Your task to perform on an android device: delete browsing data in the chrome app Image 0: 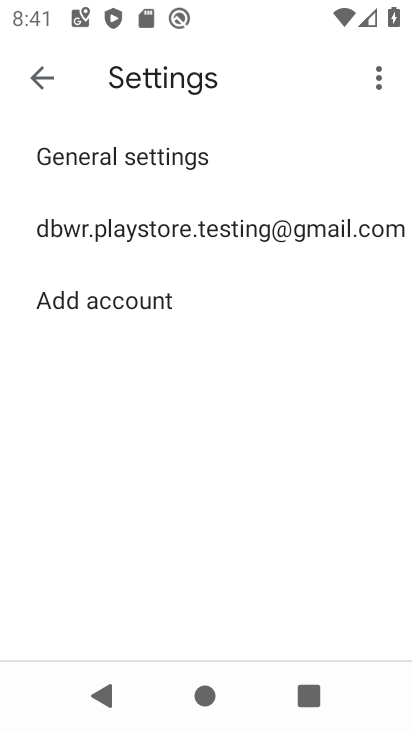
Step 0: press home button
Your task to perform on an android device: delete browsing data in the chrome app Image 1: 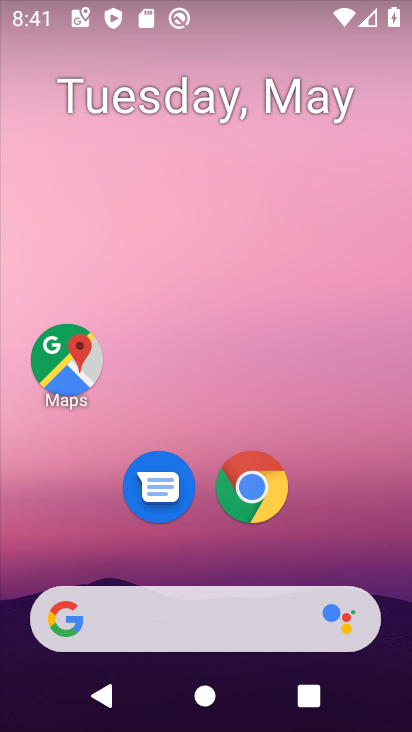
Step 1: click (253, 502)
Your task to perform on an android device: delete browsing data in the chrome app Image 2: 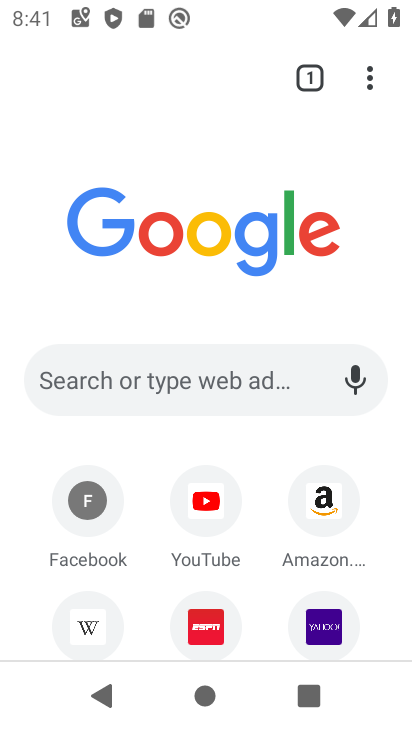
Step 2: drag from (370, 86) to (240, 540)
Your task to perform on an android device: delete browsing data in the chrome app Image 3: 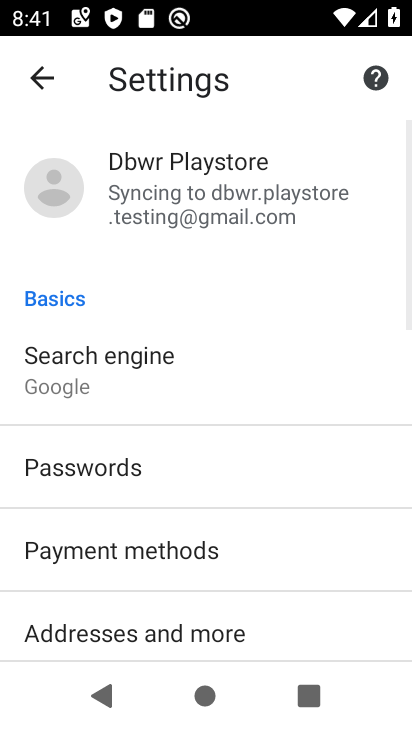
Step 3: drag from (240, 595) to (368, 45)
Your task to perform on an android device: delete browsing data in the chrome app Image 4: 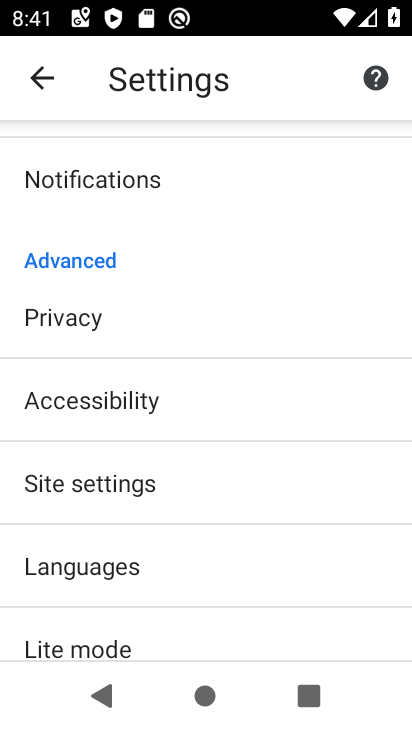
Step 4: click (81, 315)
Your task to perform on an android device: delete browsing data in the chrome app Image 5: 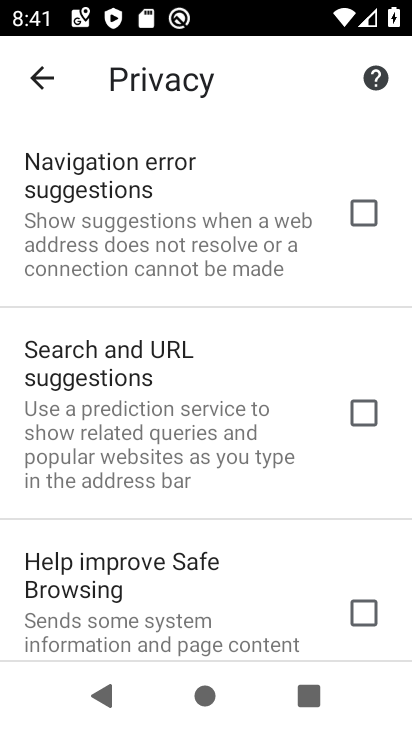
Step 5: drag from (240, 567) to (349, 84)
Your task to perform on an android device: delete browsing data in the chrome app Image 6: 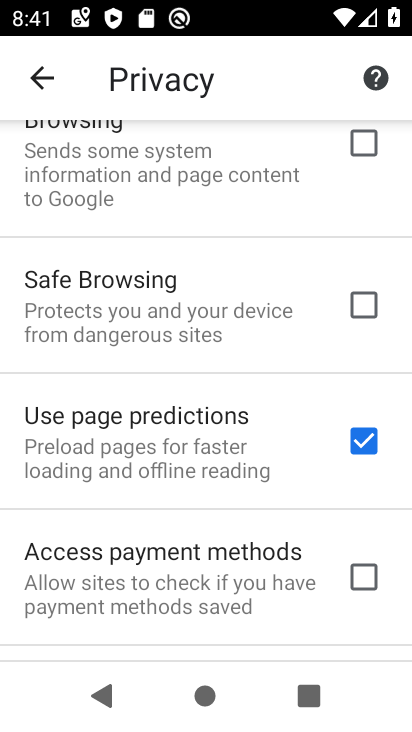
Step 6: drag from (219, 581) to (344, 62)
Your task to perform on an android device: delete browsing data in the chrome app Image 7: 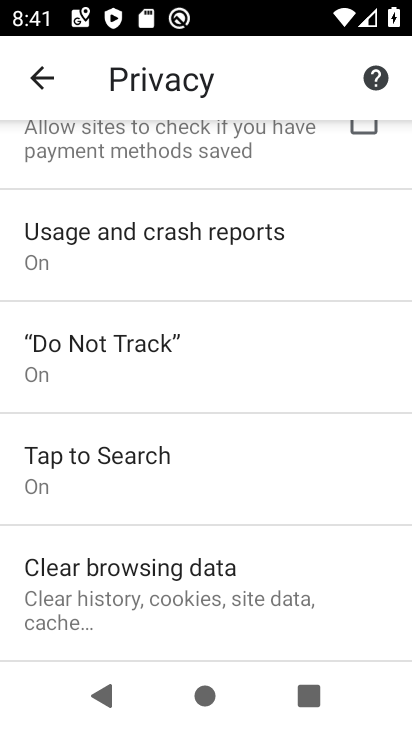
Step 7: drag from (263, 529) to (340, 121)
Your task to perform on an android device: delete browsing data in the chrome app Image 8: 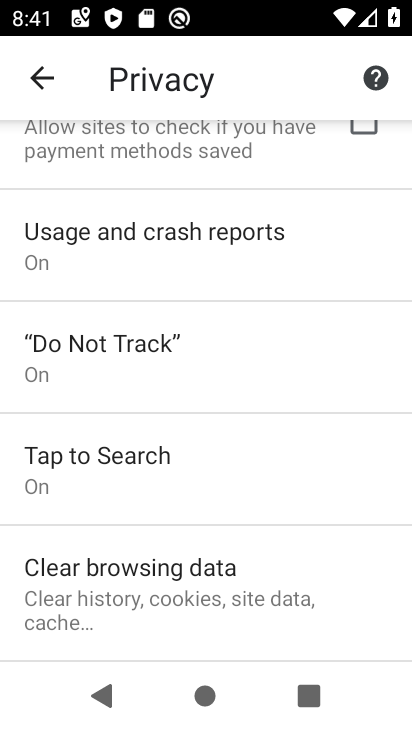
Step 8: click (192, 594)
Your task to perform on an android device: delete browsing data in the chrome app Image 9: 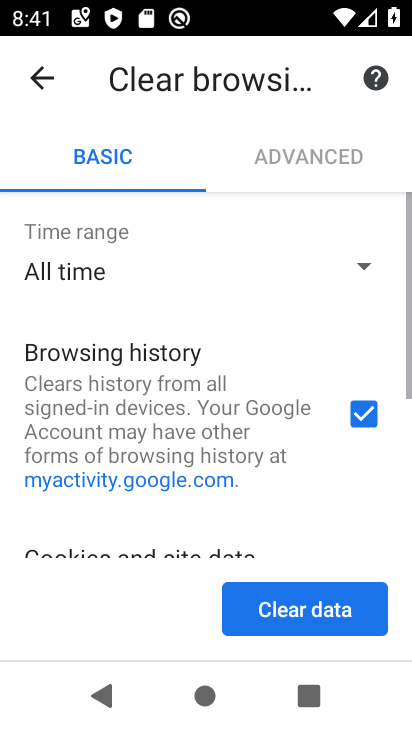
Step 9: drag from (250, 487) to (340, 151)
Your task to perform on an android device: delete browsing data in the chrome app Image 10: 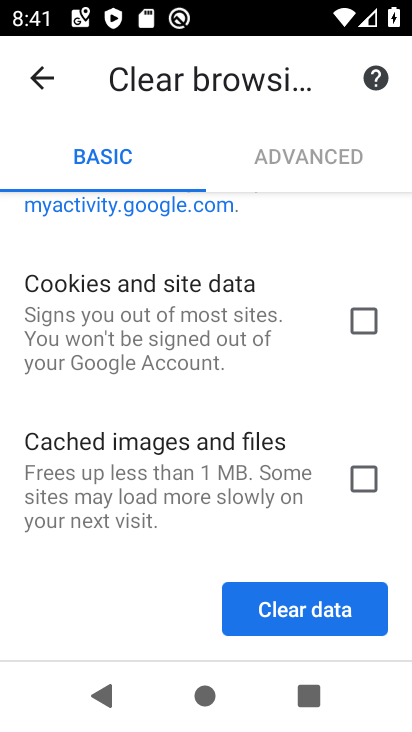
Step 10: click (362, 321)
Your task to perform on an android device: delete browsing data in the chrome app Image 11: 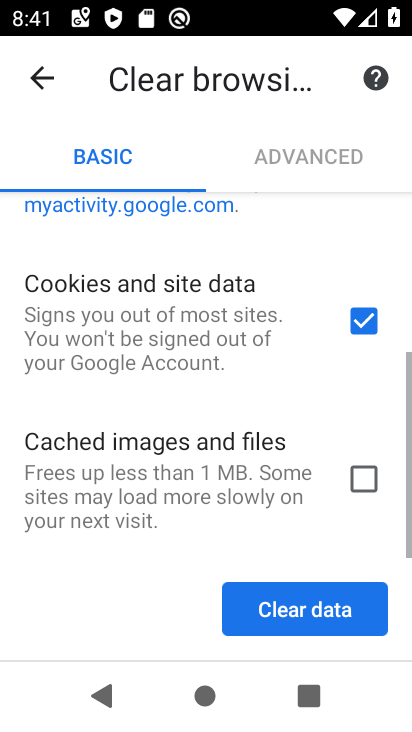
Step 11: click (364, 486)
Your task to perform on an android device: delete browsing data in the chrome app Image 12: 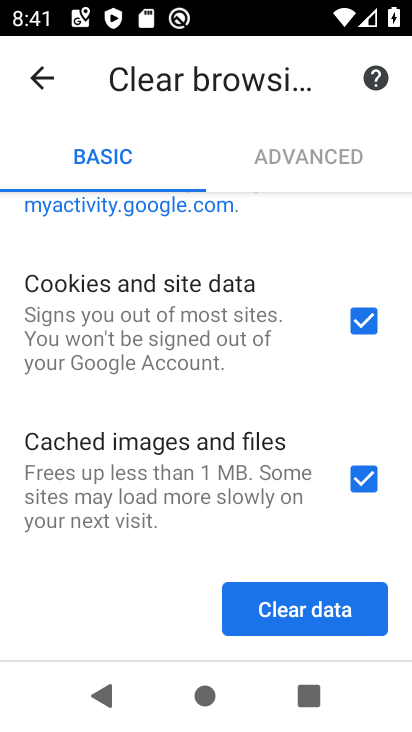
Step 12: click (277, 613)
Your task to perform on an android device: delete browsing data in the chrome app Image 13: 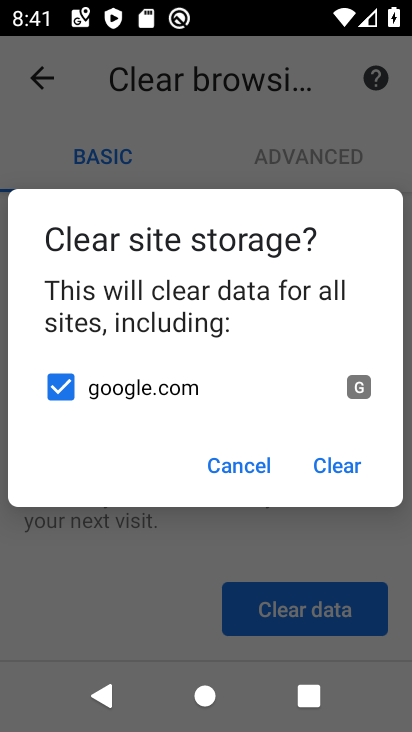
Step 13: click (334, 466)
Your task to perform on an android device: delete browsing data in the chrome app Image 14: 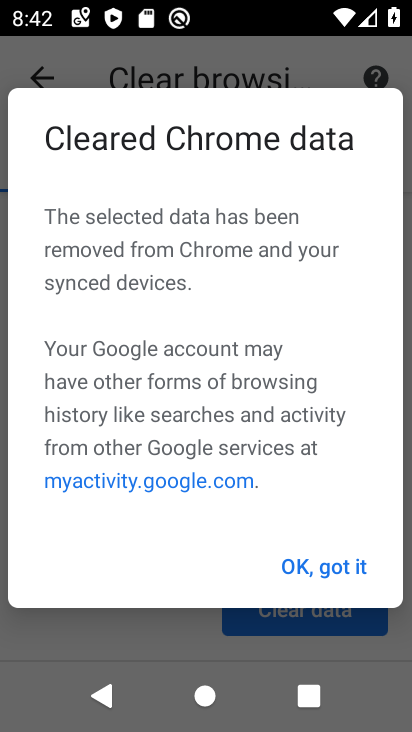
Step 14: click (295, 571)
Your task to perform on an android device: delete browsing data in the chrome app Image 15: 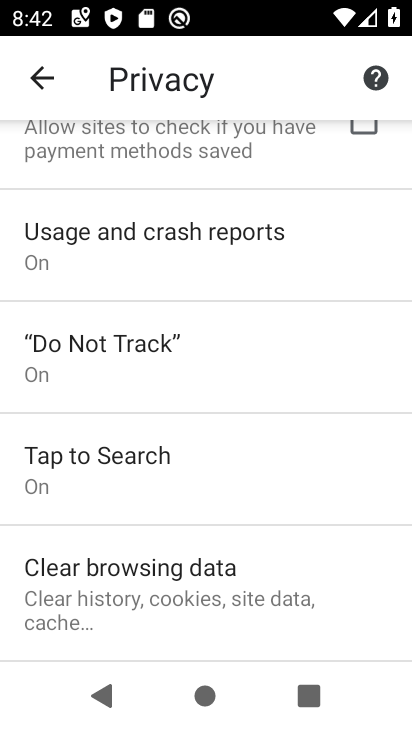
Step 15: task complete